Your task to perform on an android device: Open network settings Image 0: 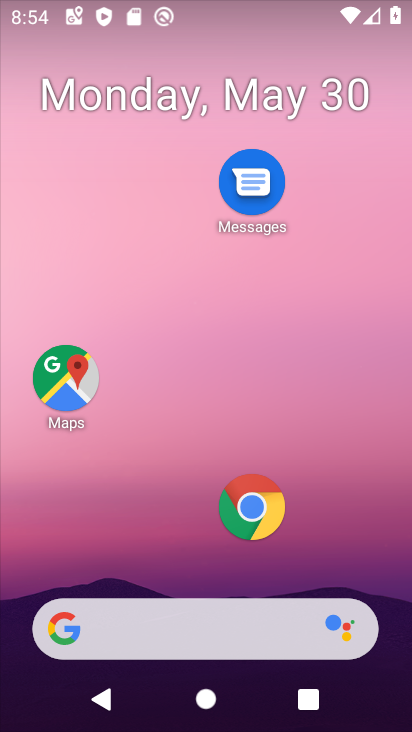
Step 0: drag from (211, 551) to (204, 98)
Your task to perform on an android device: Open network settings Image 1: 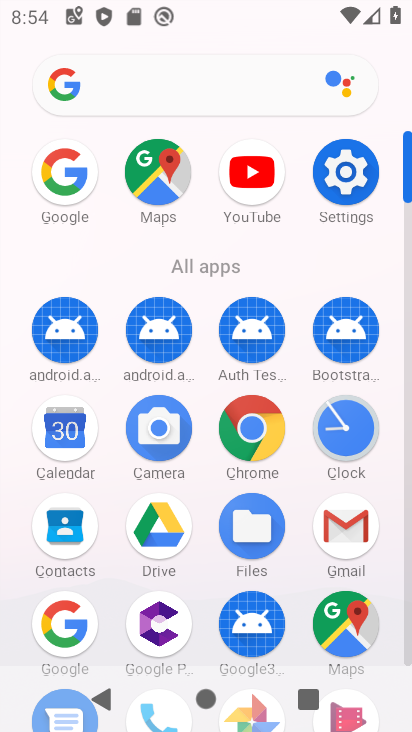
Step 1: click (348, 182)
Your task to perform on an android device: Open network settings Image 2: 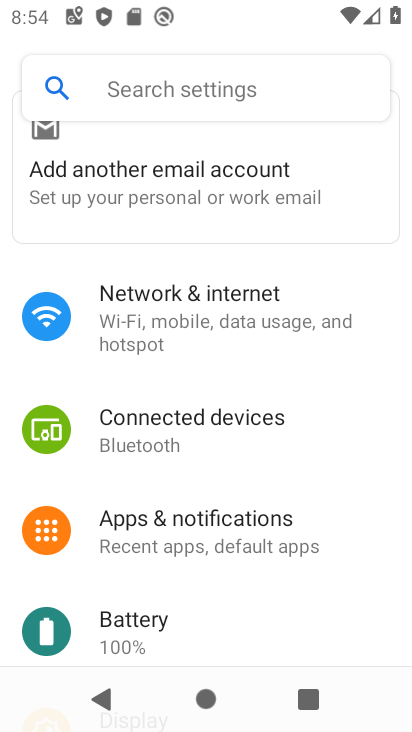
Step 2: click (160, 334)
Your task to perform on an android device: Open network settings Image 3: 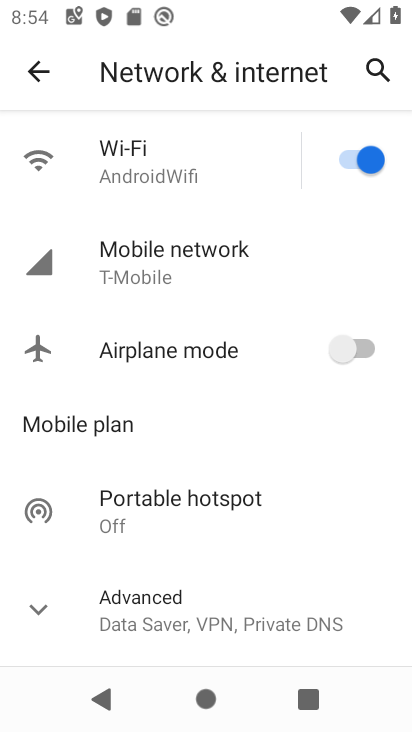
Step 3: task complete